Your task to perform on an android device: Is it going to rain this weekend? Image 0: 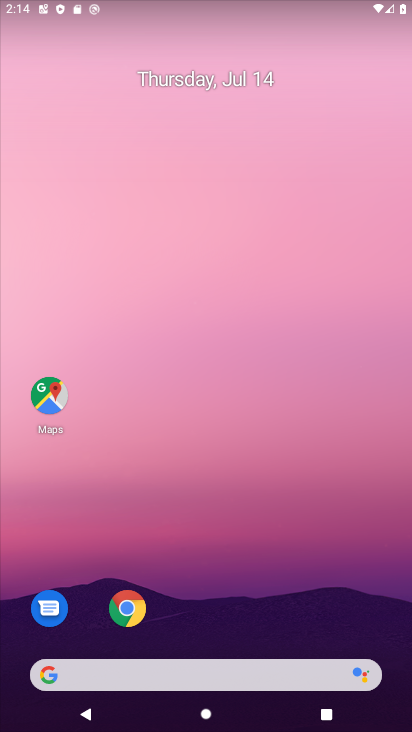
Step 0: click (203, 665)
Your task to perform on an android device: Is it going to rain this weekend? Image 1: 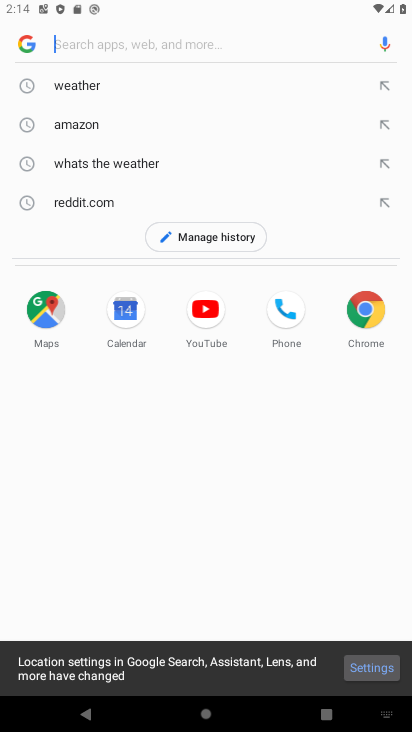
Step 1: click (87, 78)
Your task to perform on an android device: Is it going to rain this weekend? Image 2: 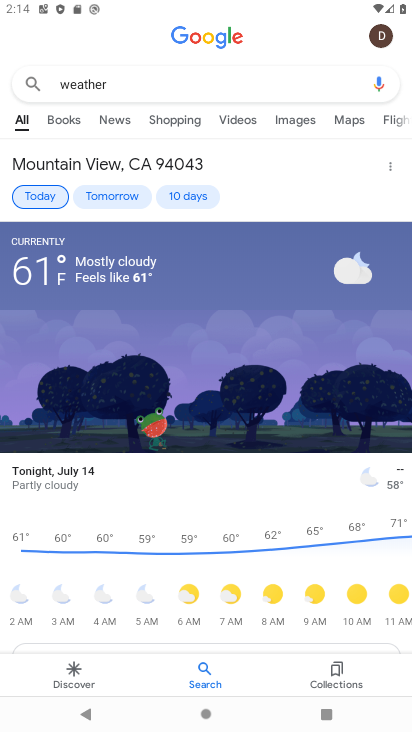
Step 2: task complete